Your task to perform on an android device: open wifi settings Image 0: 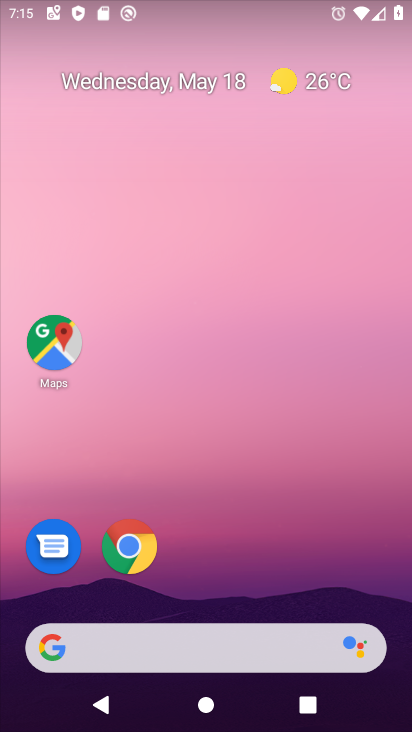
Step 0: drag from (400, 634) to (298, 54)
Your task to perform on an android device: open wifi settings Image 1: 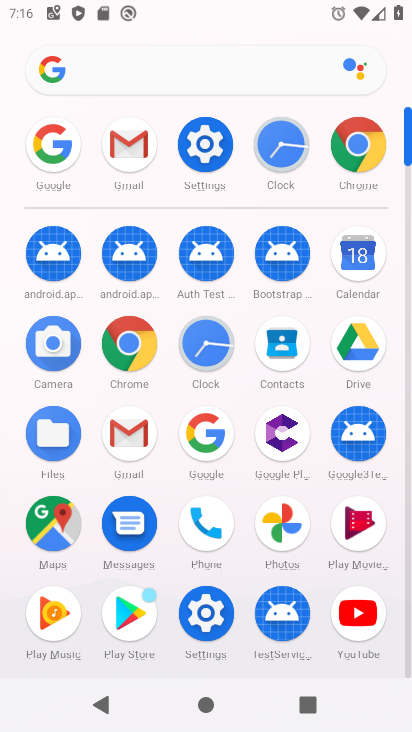
Step 1: click (199, 151)
Your task to perform on an android device: open wifi settings Image 2: 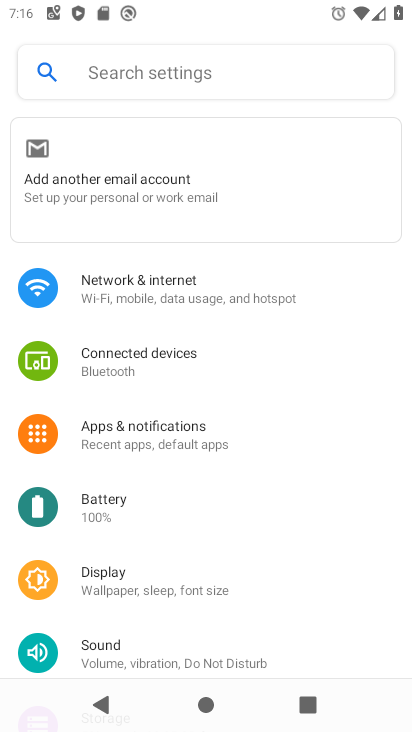
Step 2: click (220, 317)
Your task to perform on an android device: open wifi settings Image 3: 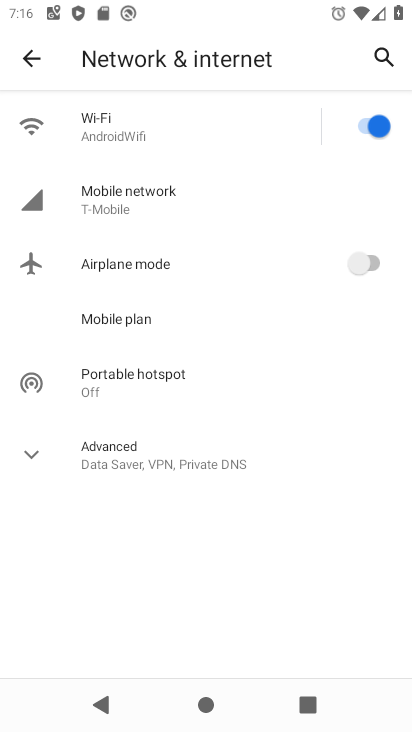
Step 3: click (154, 102)
Your task to perform on an android device: open wifi settings Image 4: 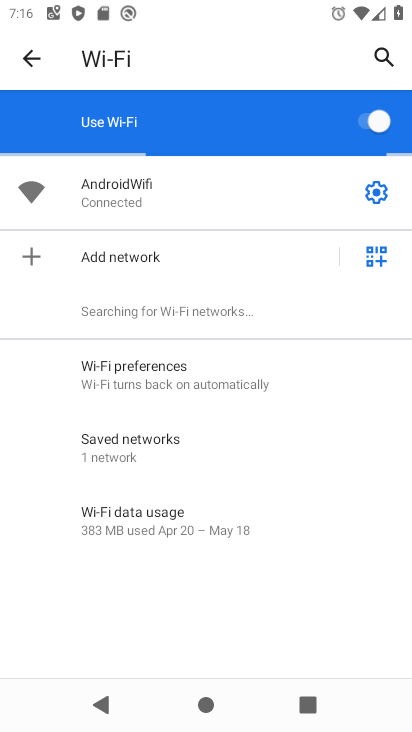
Step 4: task complete